Your task to perform on an android device: toggle sleep mode Image 0: 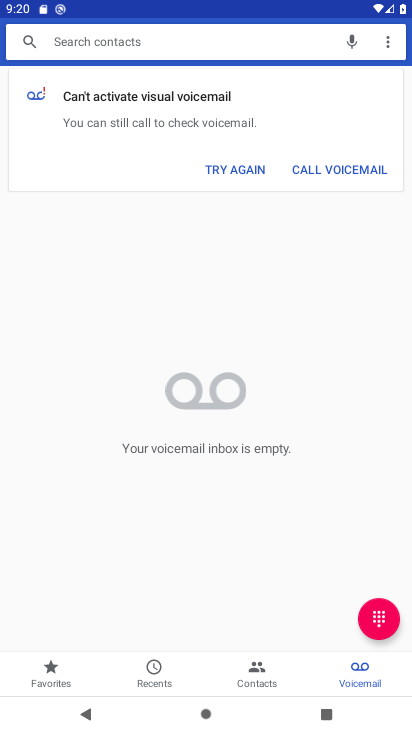
Step 0: press home button
Your task to perform on an android device: toggle sleep mode Image 1: 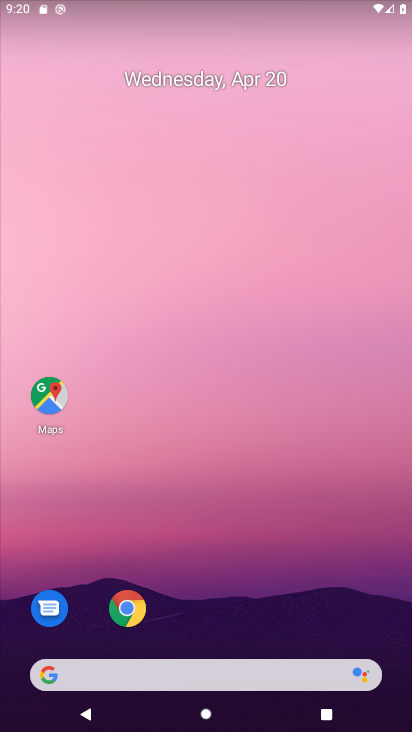
Step 1: drag from (173, 333) to (337, 14)
Your task to perform on an android device: toggle sleep mode Image 2: 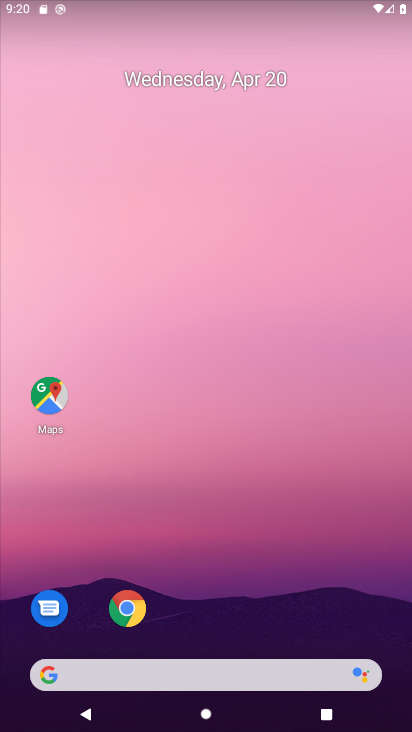
Step 2: drag from (199, 592) to (410, 17)
Your task to perform on an android device: toggle sleep mode Image 3: 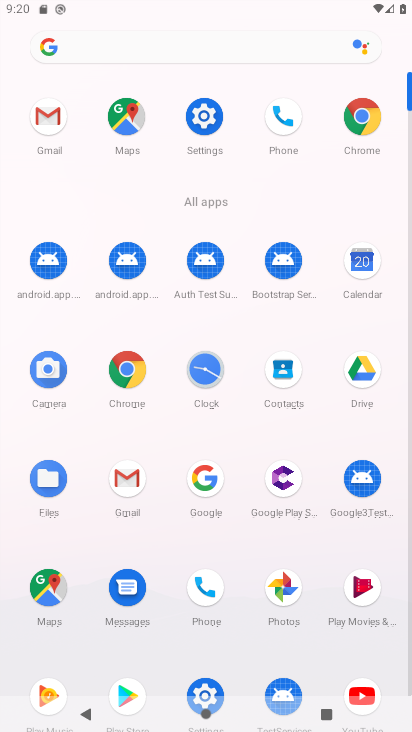
Step 3: click (212, 130)
Your task to perform on an android device: toggle sleep mode Image 4: 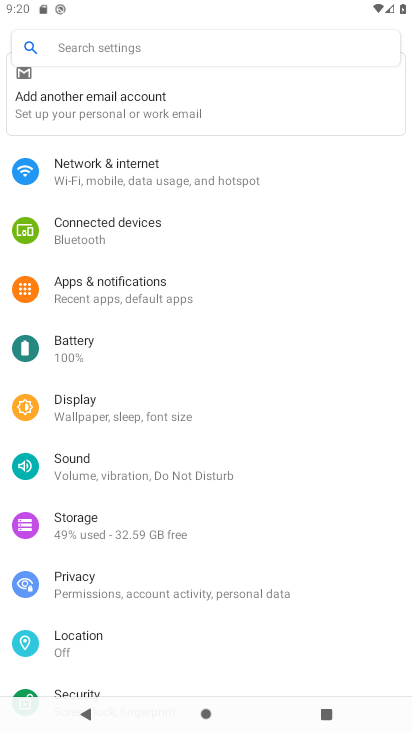
Step 4: click (199, 42)
Your task to perform on an android device: toggle sleep mode Image 5: 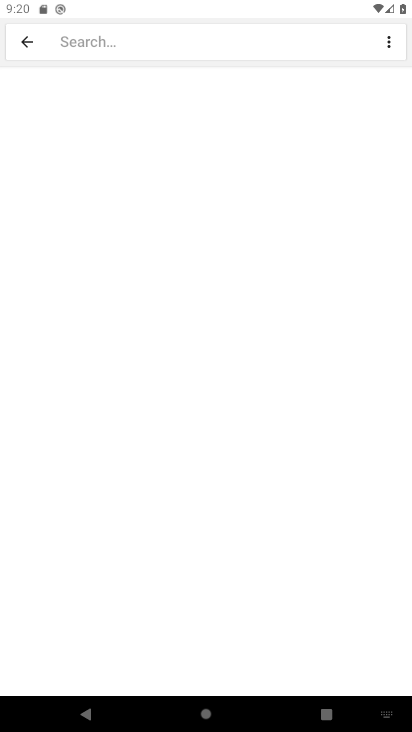
Step 5: type "sleep mode"
Your task to perform on an android device: toggle sleep mode Image 6: 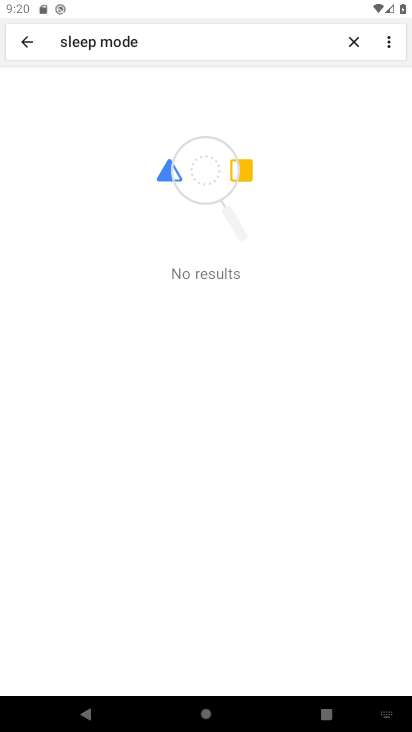
Step 6: task complete